Your task to perform on an android device: Go to Android settings Image 0: 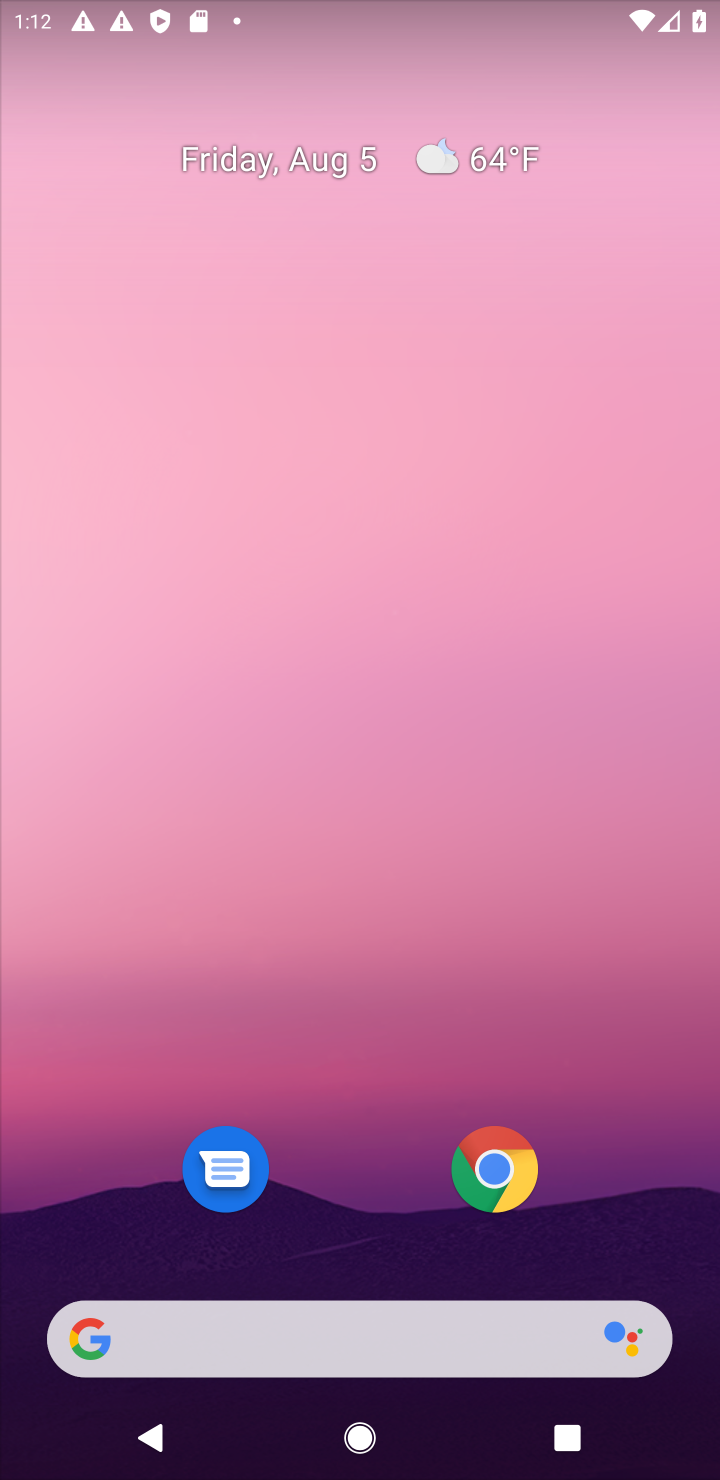
Step 0: drag from (304, 888) to (298, 349)
Your task to perform on an android device: Go to Android settings Image 1: 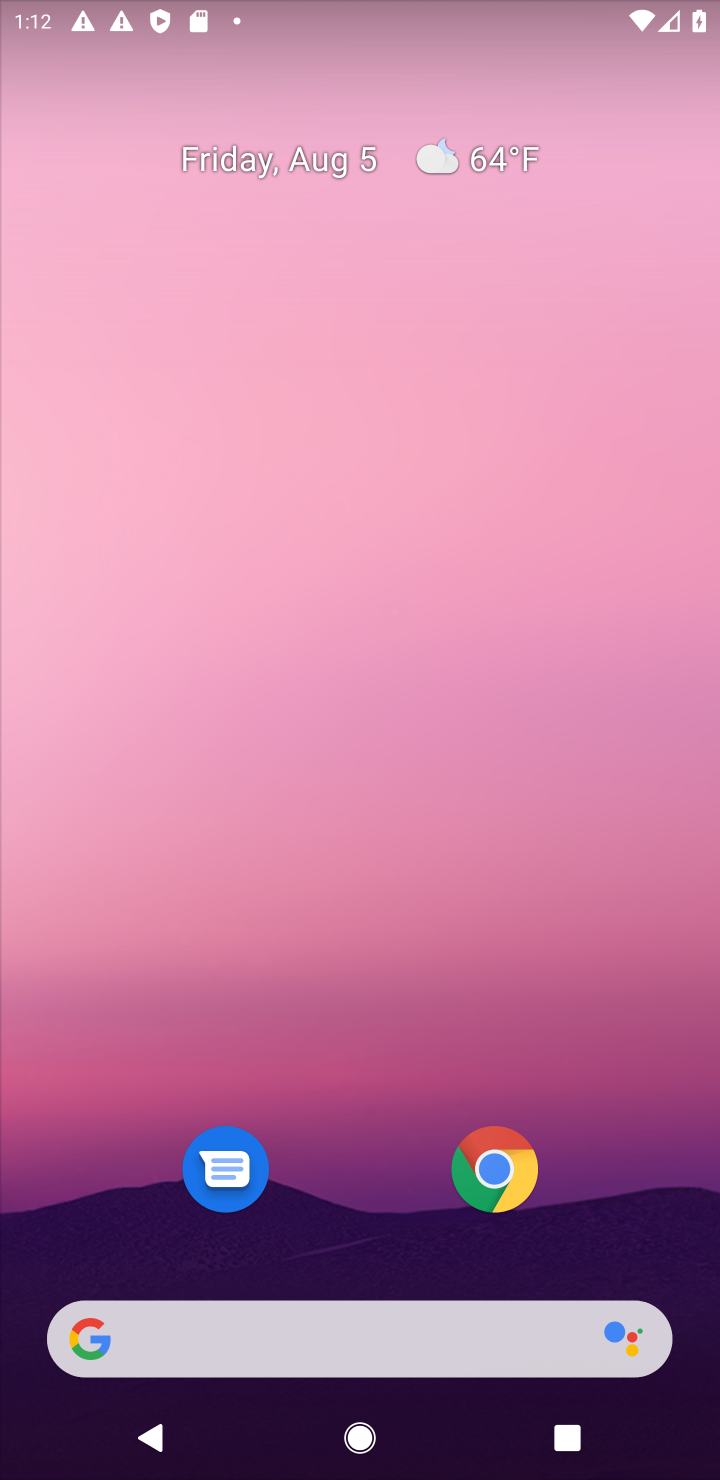
Step 1: drag from (387, 714) to (387, 360)
Your task to perform on an android device: Go to Android settings Image 2: 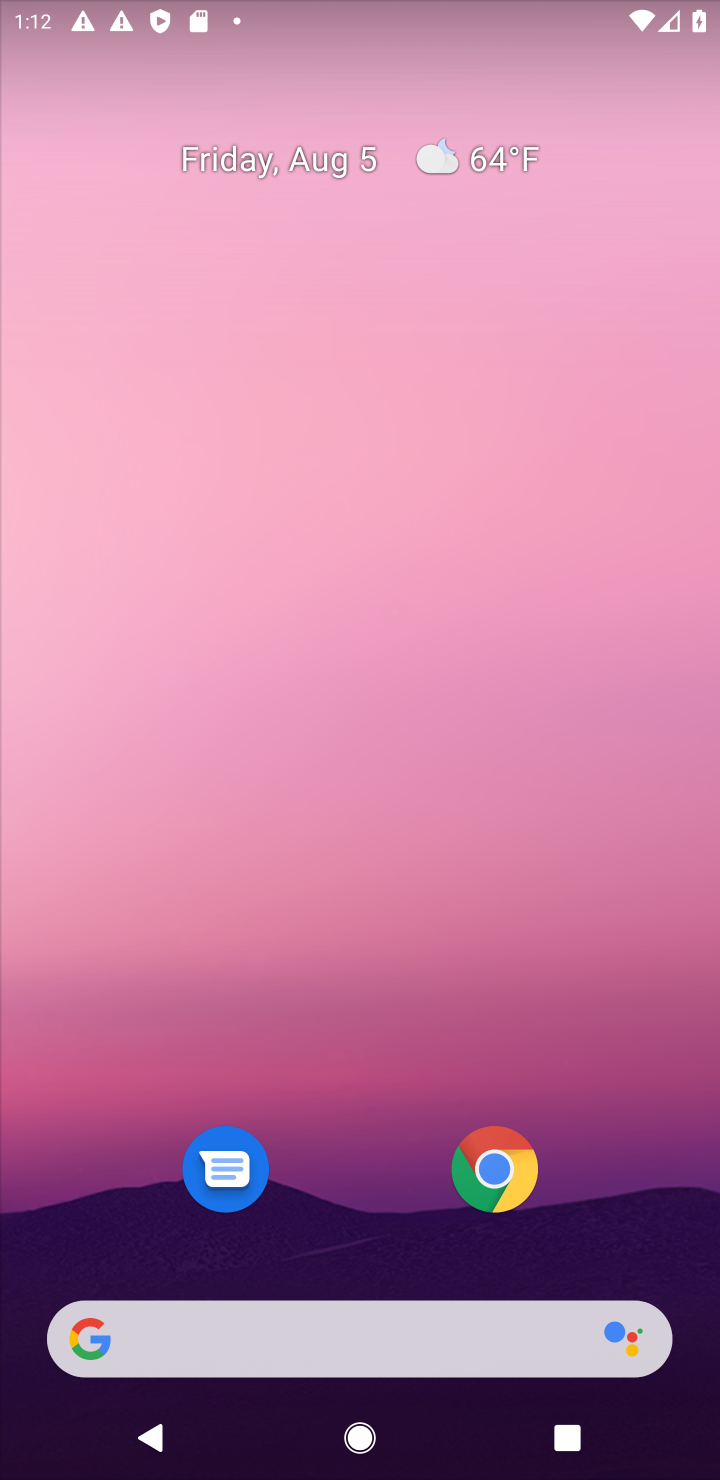
Step 2: drag from (382, 1089) to (431, 227)
Your task to perform on an android device: Go to Android settings Image 3: 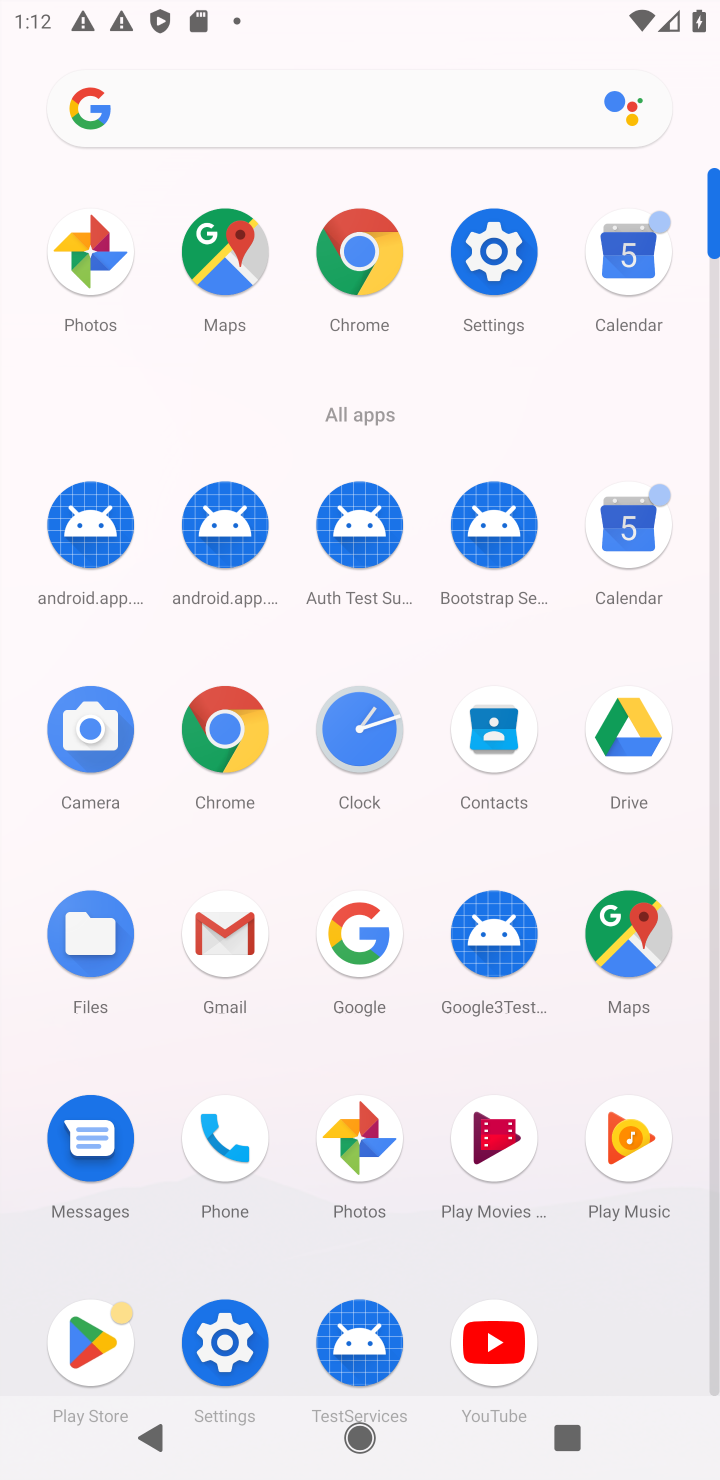
Step 3: click (476, 303)
Your task to perform on an android device: Go to Android settings Image 4: 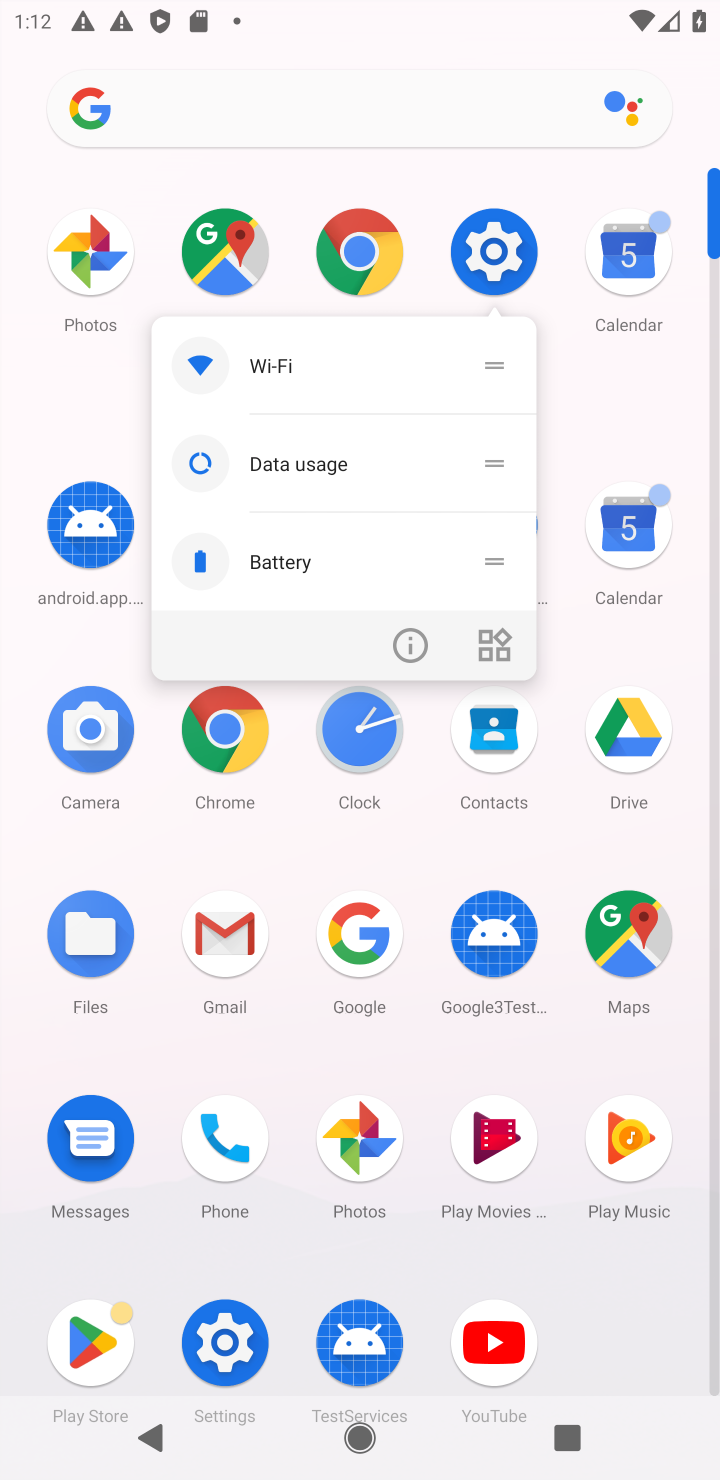
Step 4: click (481, 274)
Your task to perform on an android device: Go to Android settings Image 5: 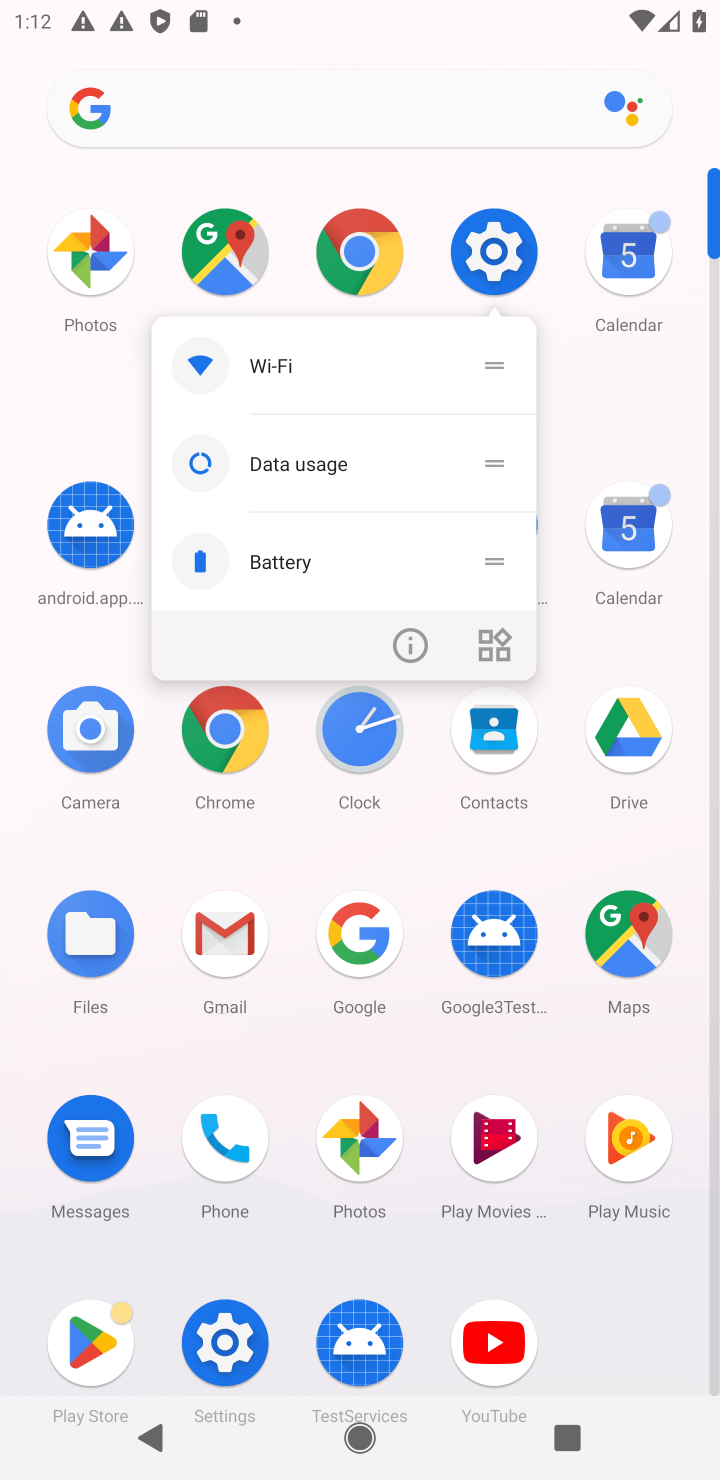
Step 5: click (481, 255)
Your task to perform on an android device: Go to Android settings Image 6: 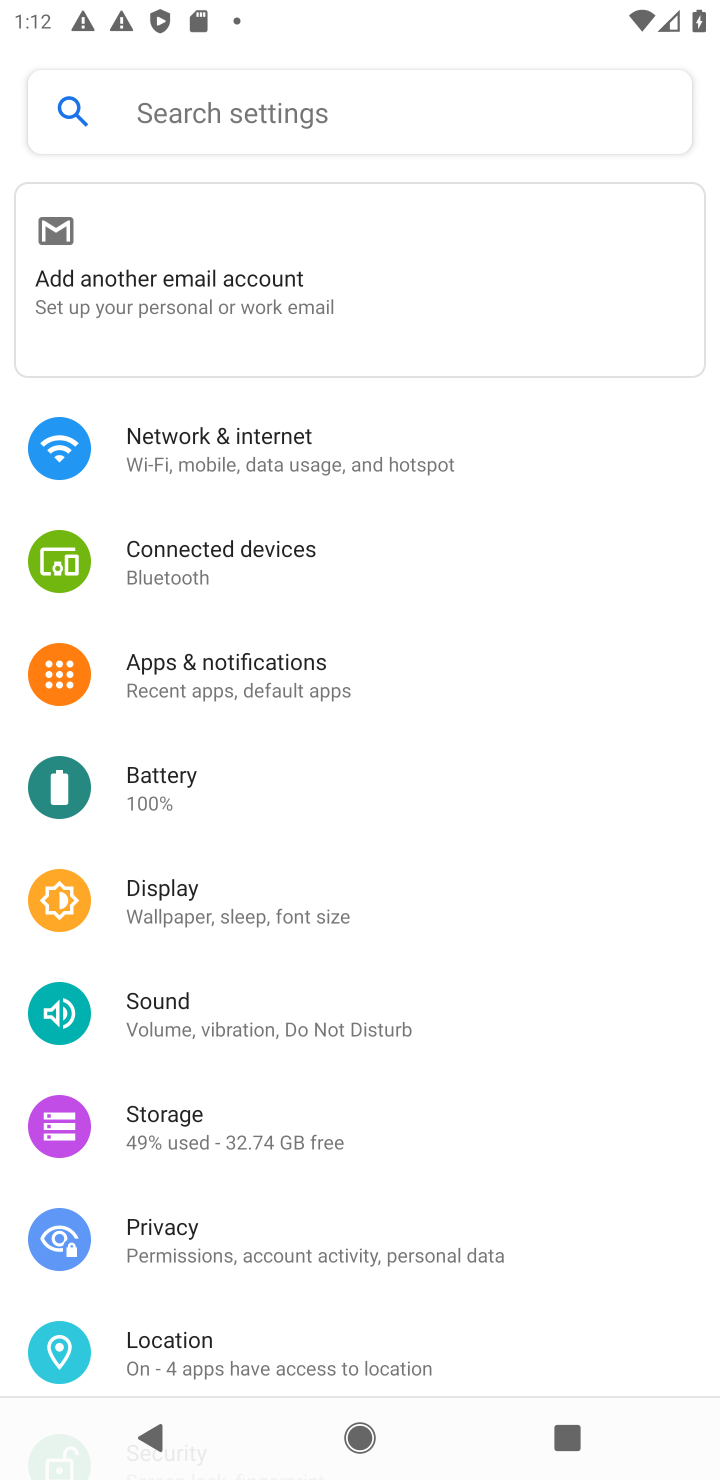
Step 6: task complete